Your task to perform on an android device: Go to Reddit.com Image 0: 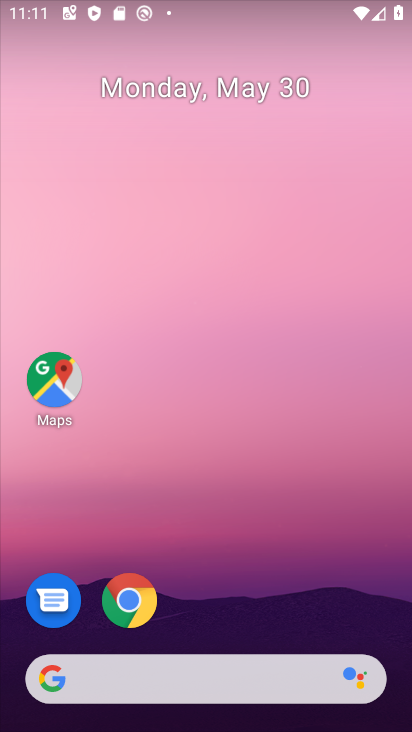
Step 0: click (128, 599)
Your task to perform on an android device: Go to Reddit.com Image 1: 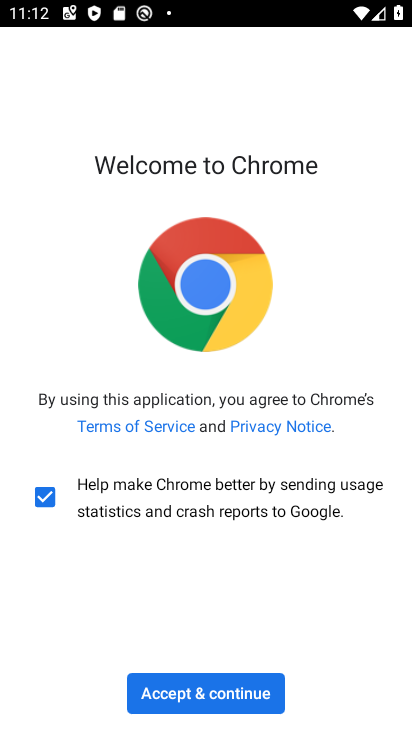
Step 1: click (176, 692)
Your task to perform on an android device: Go to Reddit.com Image 2: 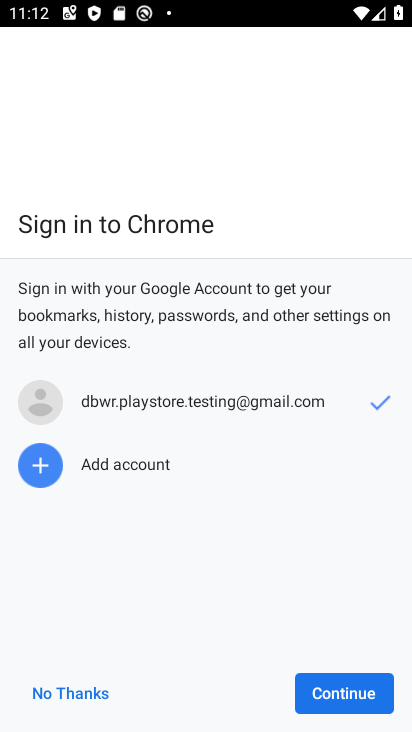
Step 2: click (312, 684)
Your task to perform on an android device: Go to Reddit.com Image 3: 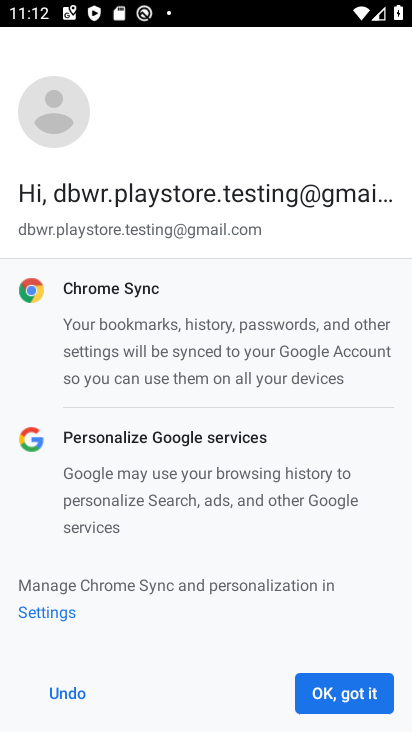
Step 3: click (338, 693)
Your task to perform on an android device: Go to Reddit.com Image 4: 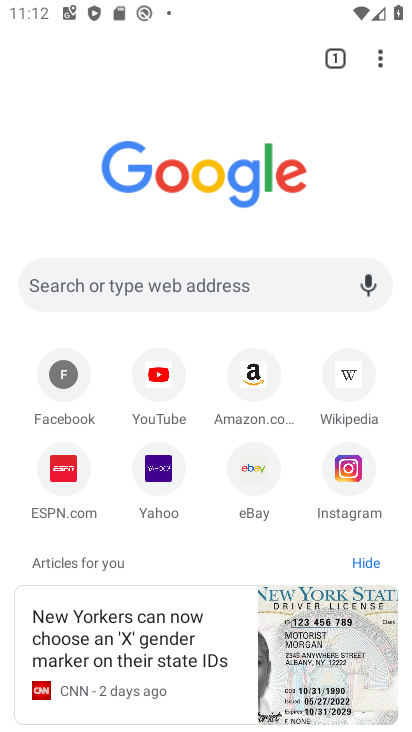
Step 4: click (214, 292)
Your task to perform on an android device: Go to Reddit.com Image 5: 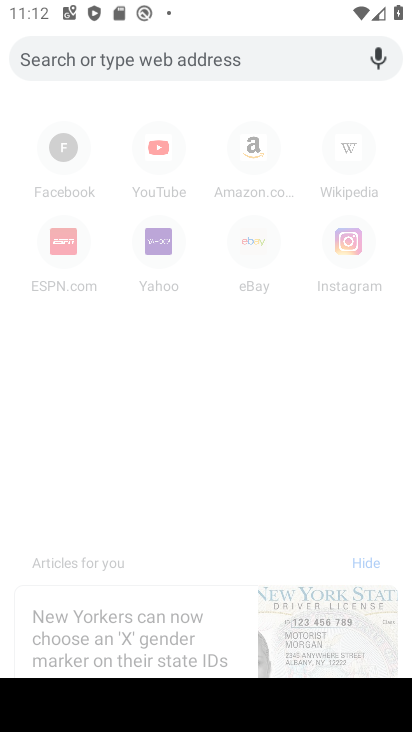
Step 5: type "Reddit.com"
Your task to perform on an android device: Go to Reddit.com Image 6: 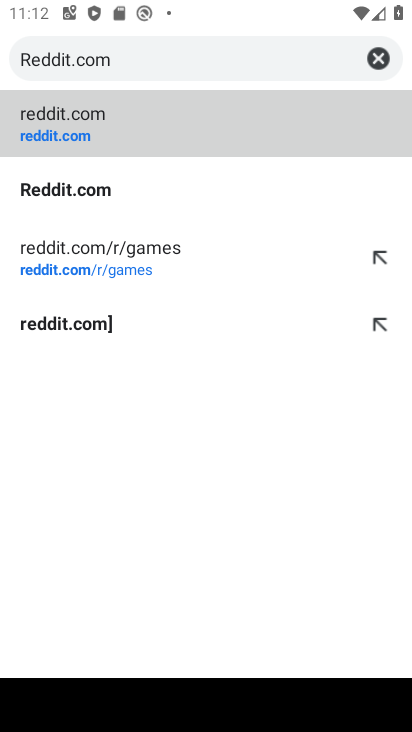
Step 6: click (77, 109)
Your task to perform on an android device: Go to Reddit.com Image 7: 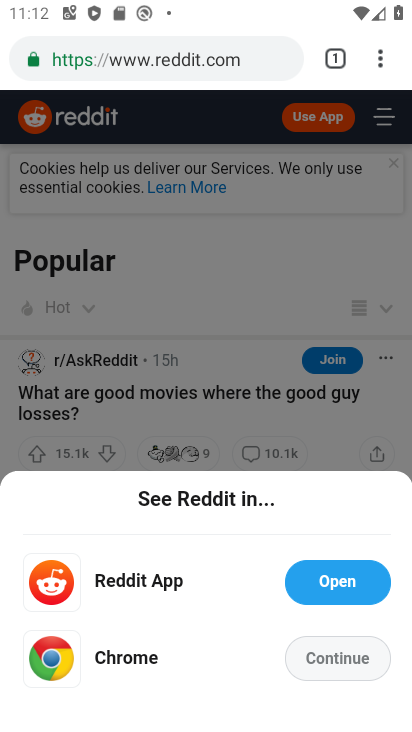
Step 7: task complete